Your task to perform on an android device: open chrome privacy settings Image 0: 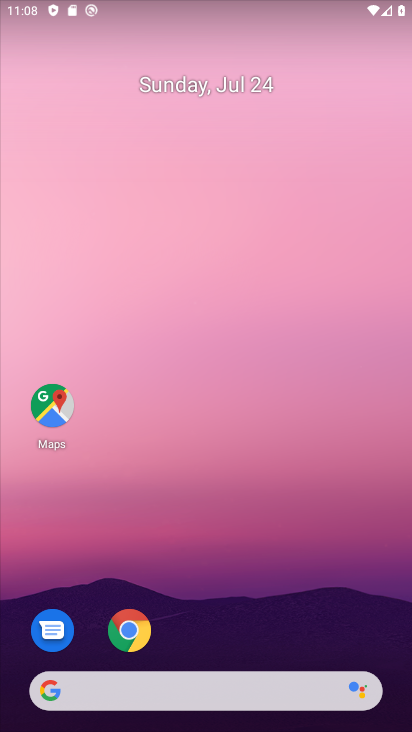
Step 0: click (131, 634)
Your task to perform on an android device: open chrome privacy settings Image 1: 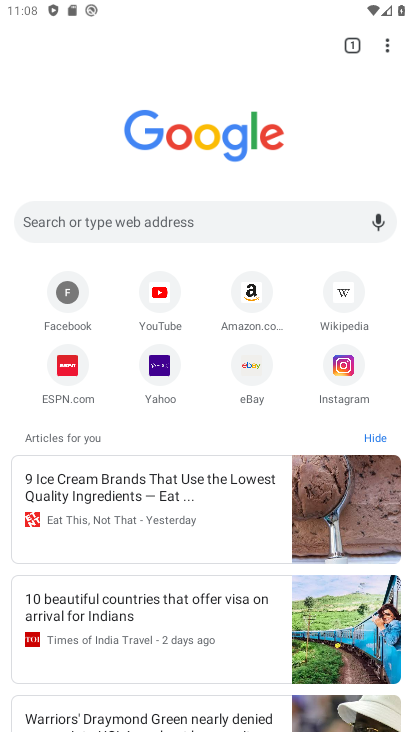
Step 1: click (385, 45)
Your task to perform on an android device: open chrome privacy settings Image 2: 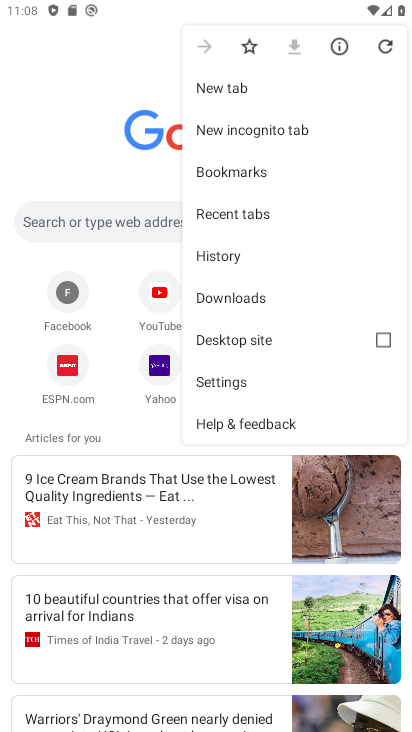
Step 2: click (222, 388)
Your task to perform on an android device: open chrome privacy settings Image 3: 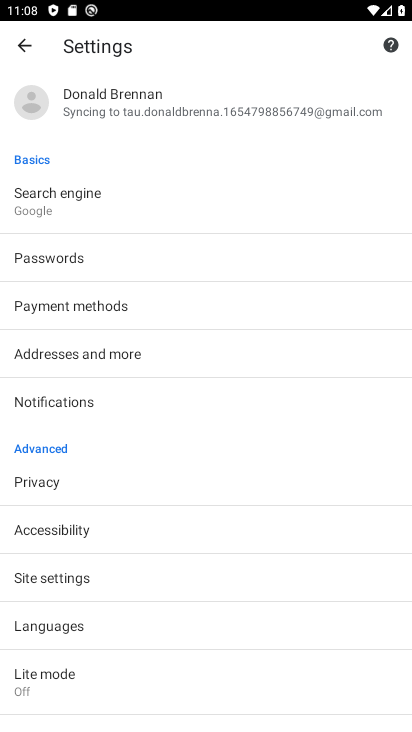
Step 3: click (52, 480)
Your task to perform on an android device: open chrome privacy settings Image 4: 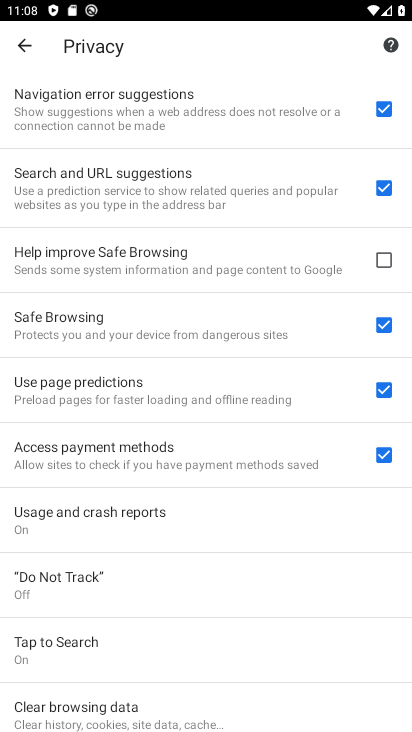
Step 4: task complete